Your task to perform on an android device: turn off notifications in google photos Image 0: 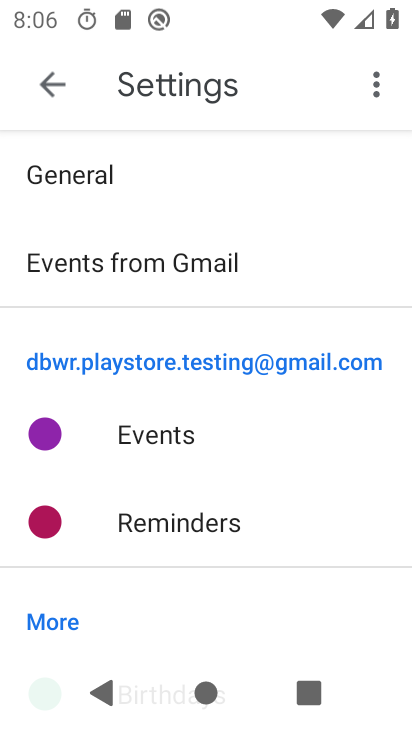
Step 0: press home button
Your task to perform on an android device: turn off notifications in google photos Image 1: 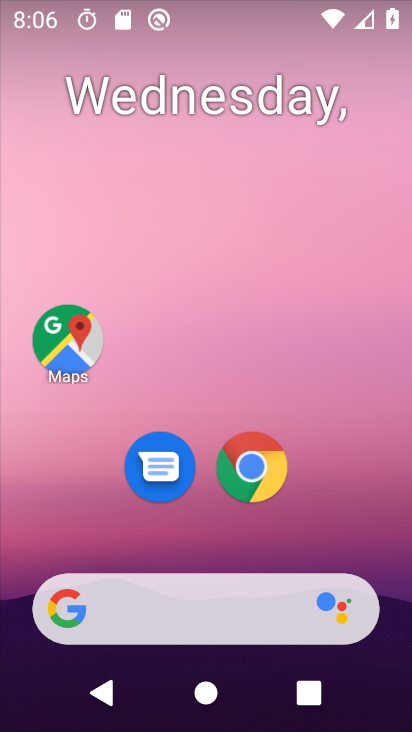
Step 1: drag from (342, 236) to (326, 158)
Your task to perform on an android device: turn off notifications in google photos Image 2: 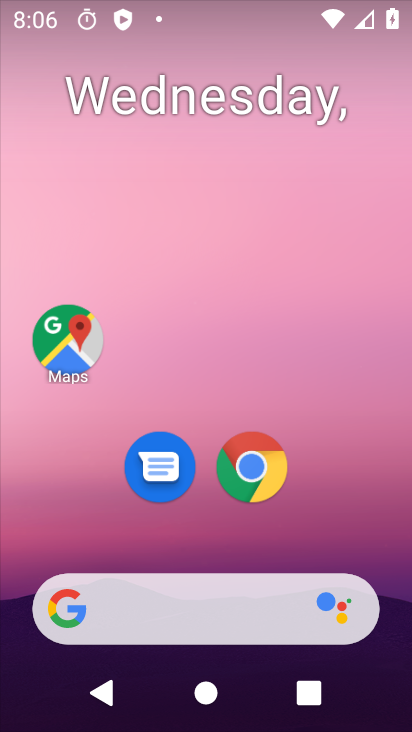
Step 2: drag from (410, 260) to (403, 189)
Your task to perform on an android device: turn off notifications in google photos Image 3: 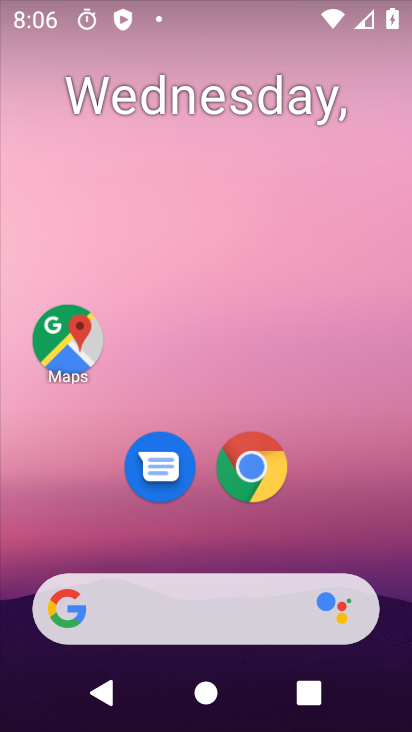
Step 3: drag from (383, 546) to (365, 85)
Your task to perform on an android device: turn off notifications in google photos Image 4: 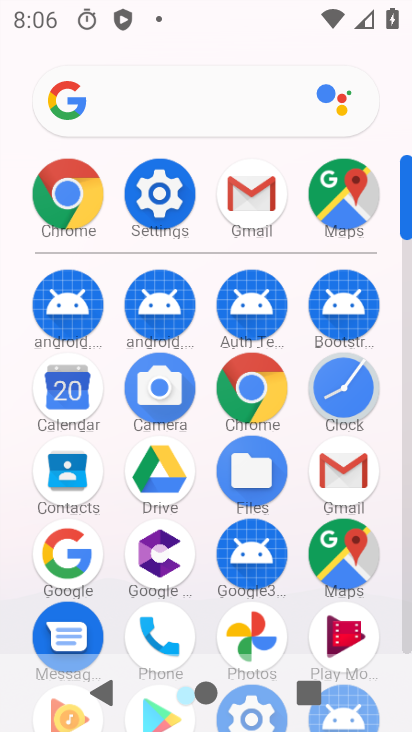
Step 4: click (247, 618)
Your task to perform on an android device: turn off notifications in google photos Image 5: 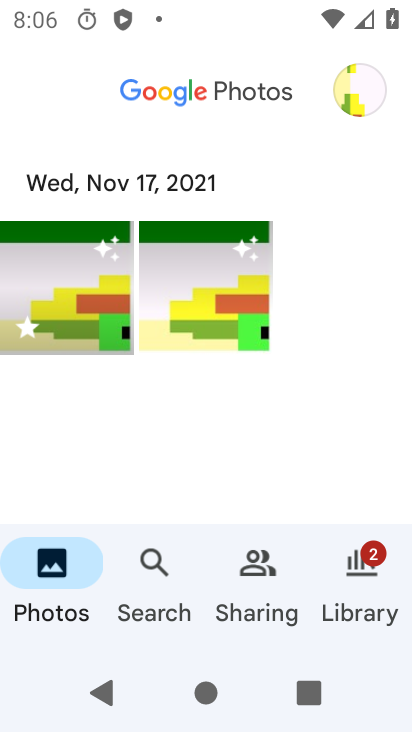
Step 5: click (353, 95)
Your task to perform on an android device: turn off notifications in google photos Image 6: 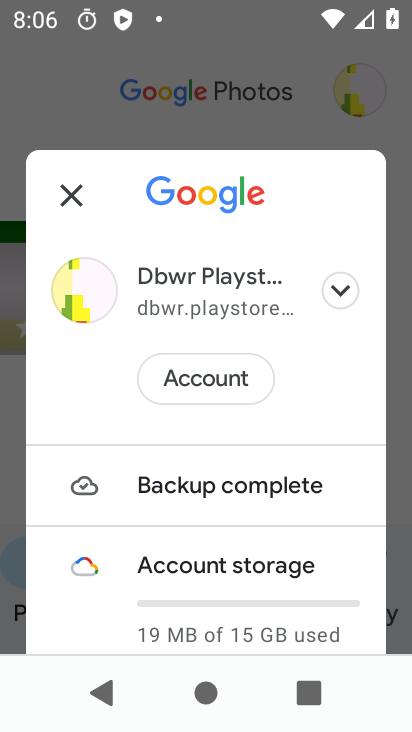
Step 6: task complete